Your task to perform on an android device: Go to location settings Image 0: 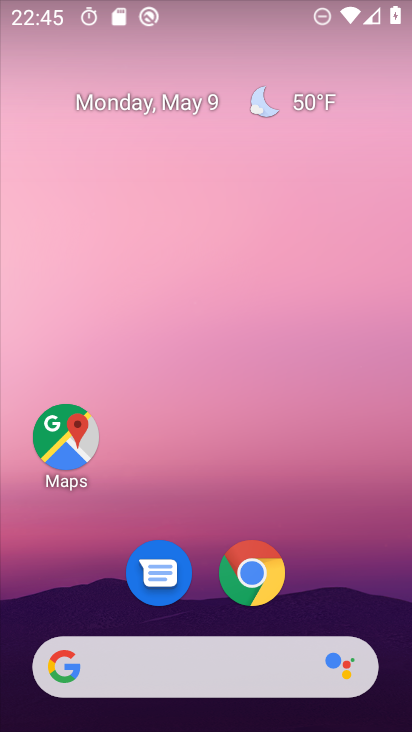
Step 0: drag from (361, 601) to (324, 107)
Your task to perform on an android device: Go to location settings Image 1: 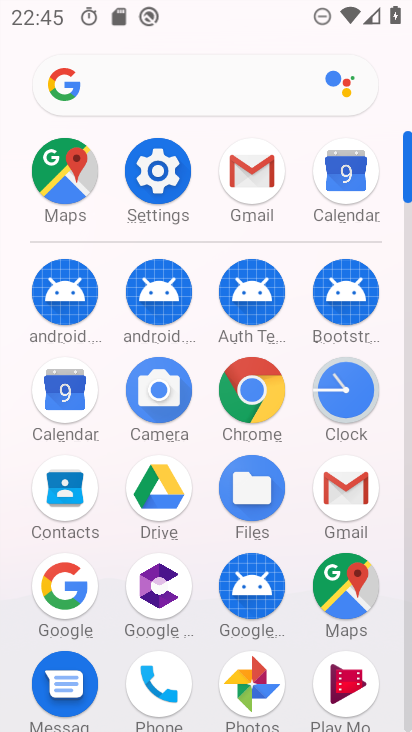
Step 1: click (160, 161)
Your task to perform on an android device: Go to location settings Image 2: 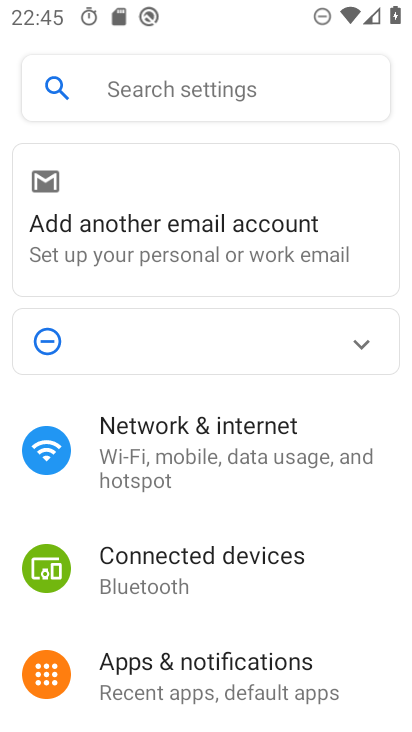
Step 2: drag from (237, 620) to (241, 137)
Your task to perform on an android device: Go to location settings Image 3: 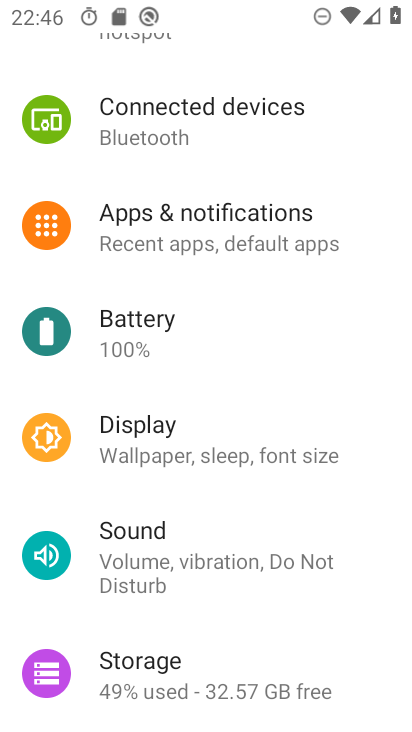
Step 3: drag from (189, 543) to (251, 171)
Your task to perform on an android device: Go to location settings Image 4: 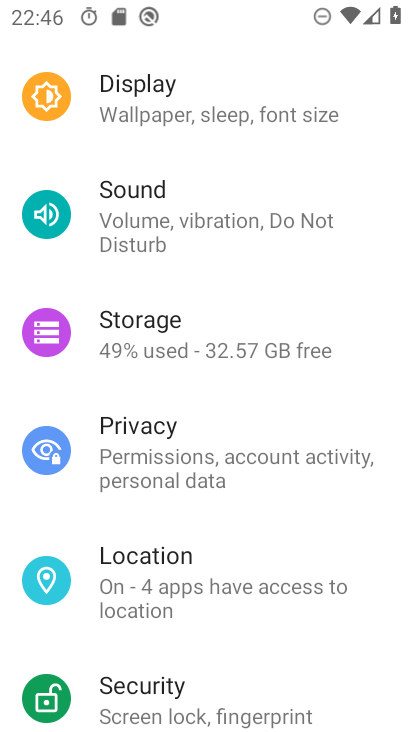
Step 4: click (165, 569)
Your task to perform on an android device: Go to location settings Image 5: 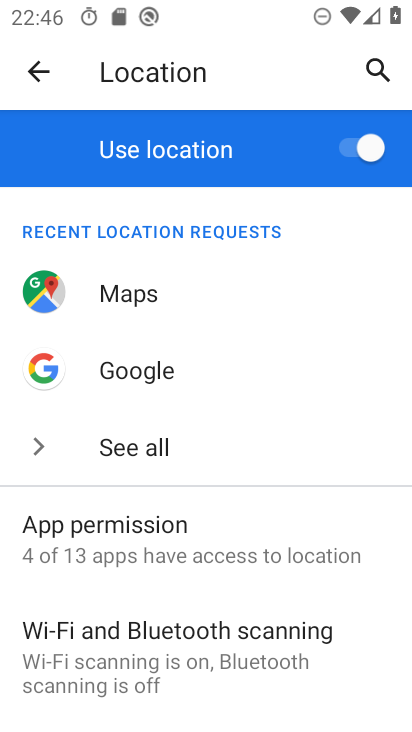
Step 5: task complete